Your task to perform on an android device: Set the phone to "Do not disturb". Image 0: 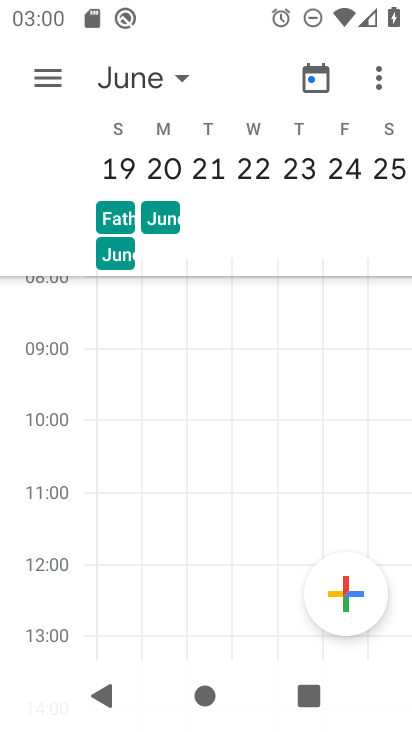
Step 0: press home button
Your task to perform on an android device: Set the phone to "Do not disturb". Image 1: 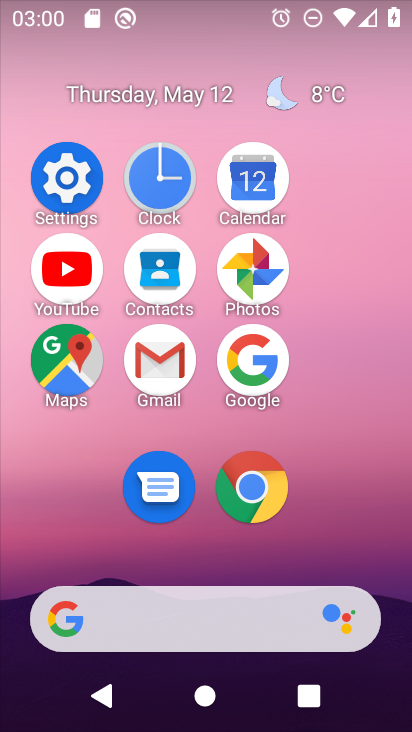
Step 1: click (43, 193)
Your task to perform on an android device: Set the phone to "Do not disturb". Image 2: 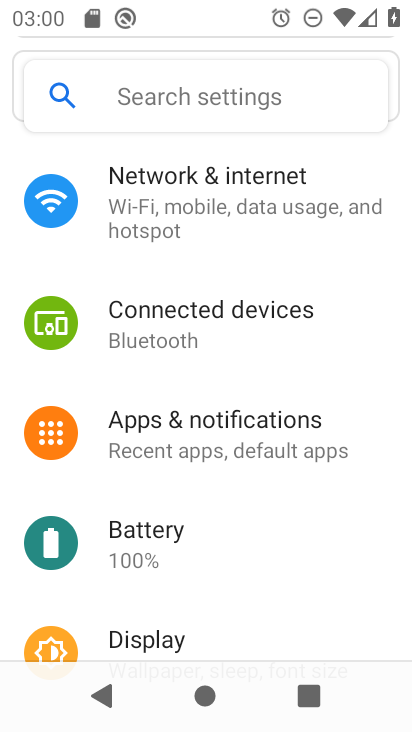
Step 2: drag from (286, 545) to (313, 248)
Your task to perform on an android device: Set the phone to "Do not disturb". Image 3: 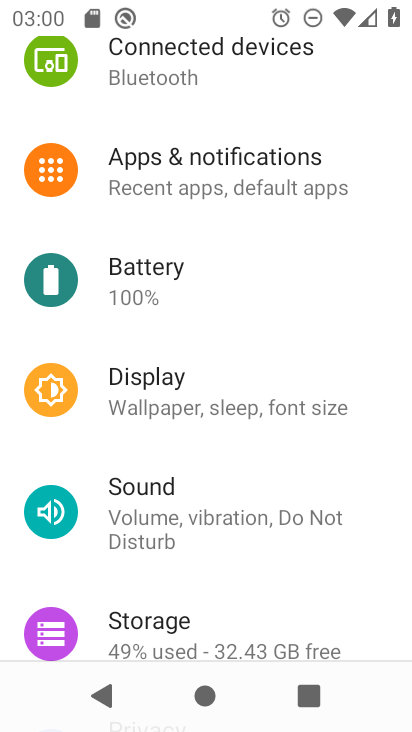
Step 3: click (258, 501)
Your task to perform on an android device: Set the phone to "Do not disturb". Image 4: 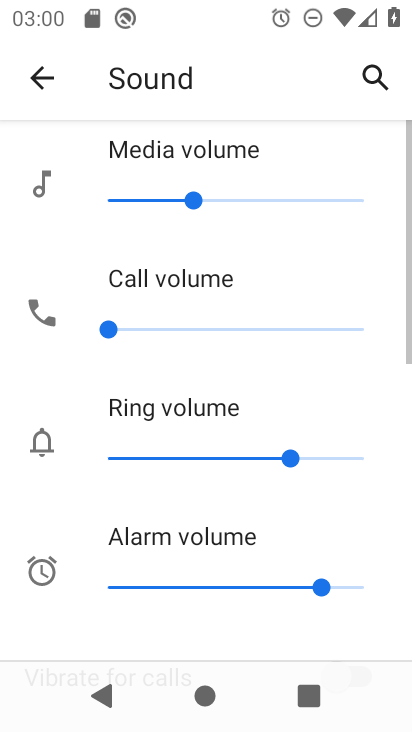
Step 4: task complete